Your task to perform on an android device: open device folders in google photos Image 0: 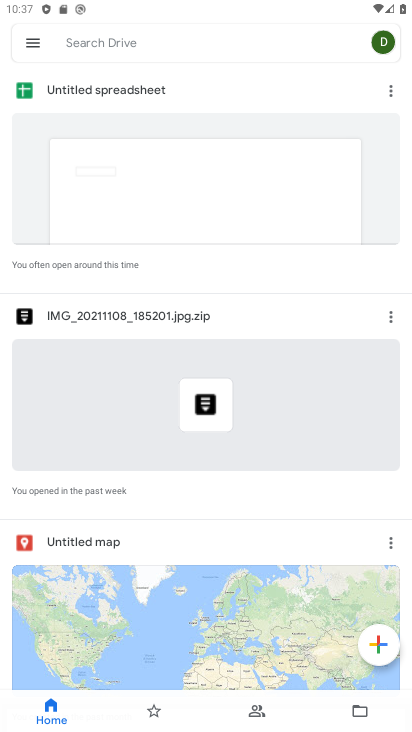
Step 0: press home button
Your task to perform on an android device: open device folders in google photos Image 1: 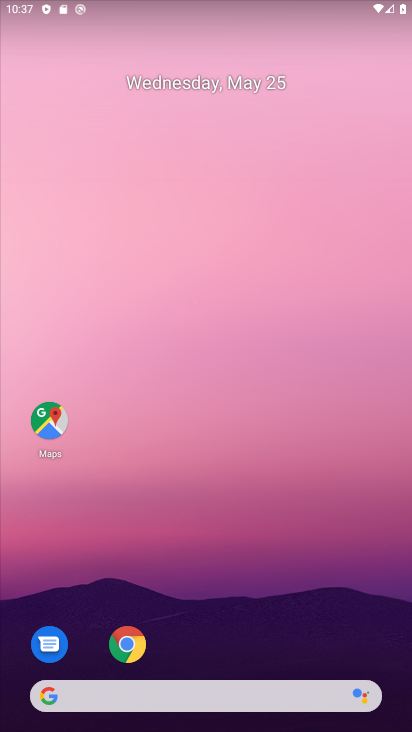
Step 1: drag from (176, 652) to (276, 147)
Your task to perform on an android device: open device folders in google photos Image 2: 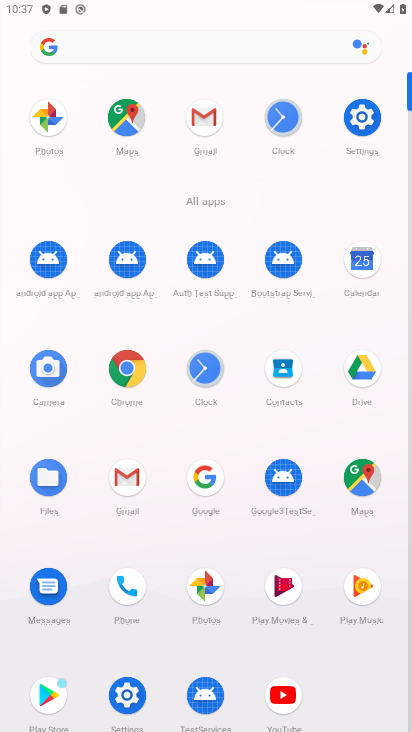
Step 2: click (207, 588)
Your task to perform on an android device: open device folders in google photos Image 3: 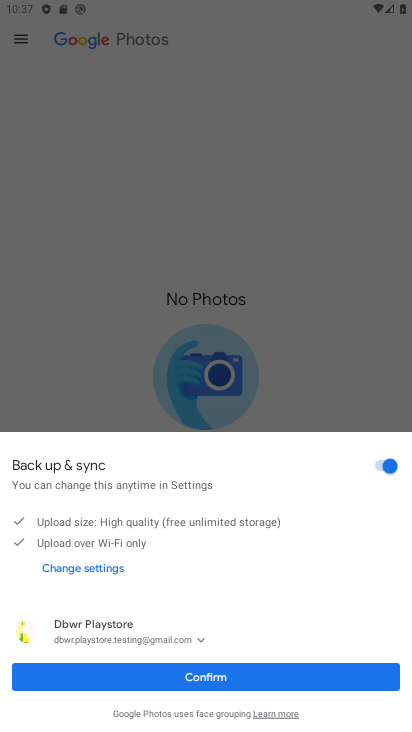
Step 3: click (214, 692)
Your task to perform on an android device: open device folders in google photos Image 4: 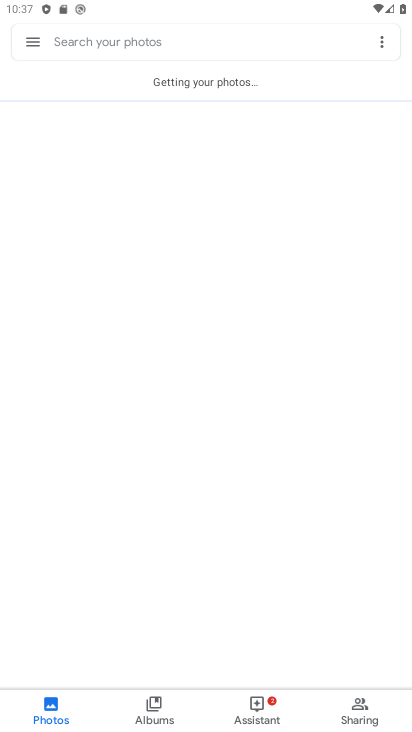
Step 4: click (39, 60)
Your task to perform on an android device: open device folders in google photos Image 5: 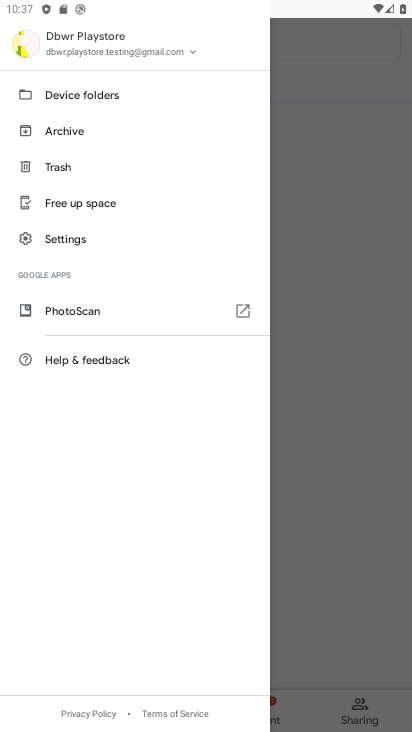
Step 5: click (121, 86)
Your task to perform on an android device: open device folders in google photos Image 6: 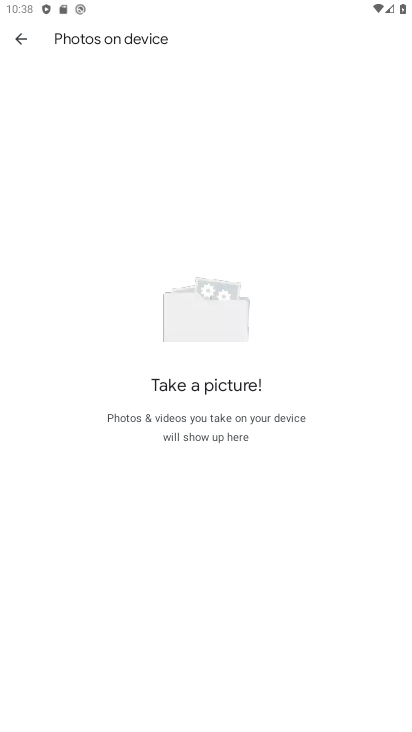
Step 6: task complete